Your task to perform on an android device: Search for pizza restaurants on Maps Image 0: 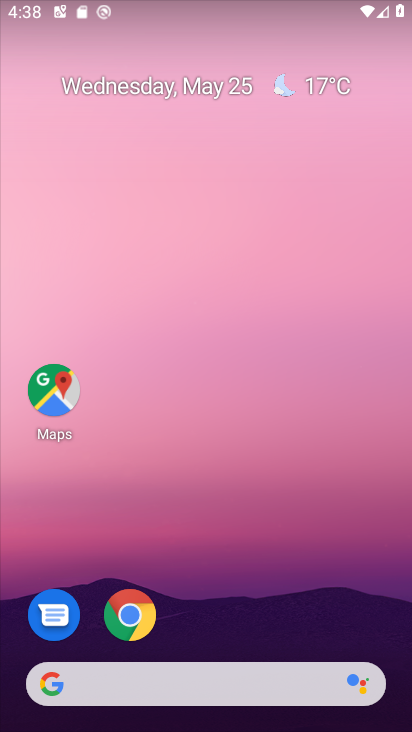
Step 0: click (62, 386)
Your task to perform on an android device: Search for pizza restaurants on Maps Image 1: 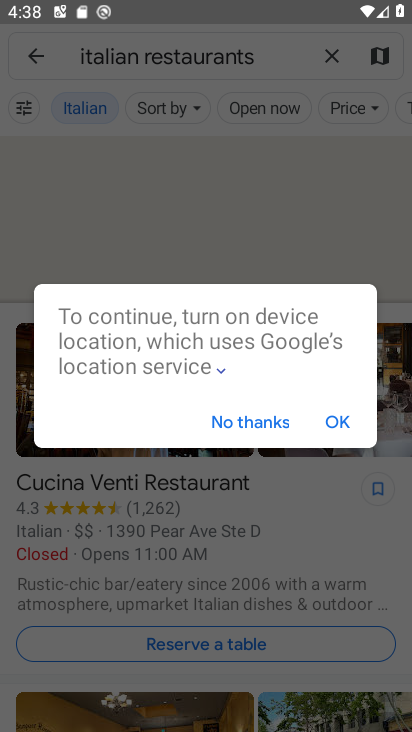
Step 1: click (234, 421)
Your task to perform on an android device: Search for pizza restaurants on Maps Image 2: 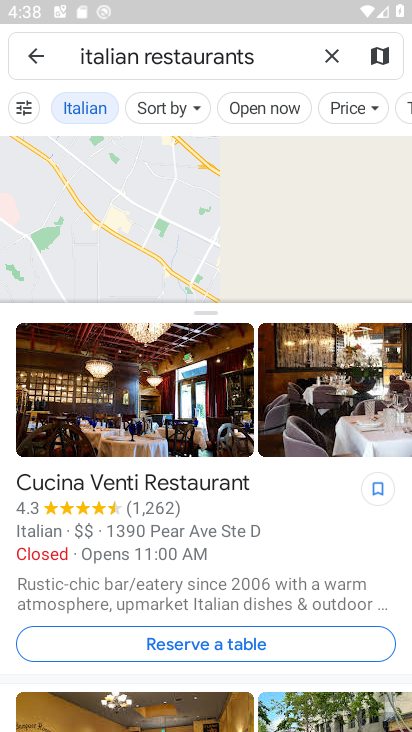
Step 2: click (332, 53)
Your task to perform on an android device: Search for pizza restaurants on Maps Image 3: 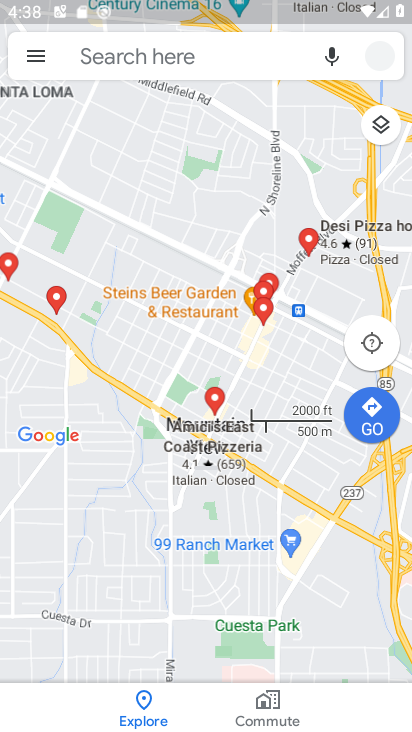
Step 3: click (203, 52)
Your task to perform on an android device: Search for pizza restaurants on Maps Image 4: 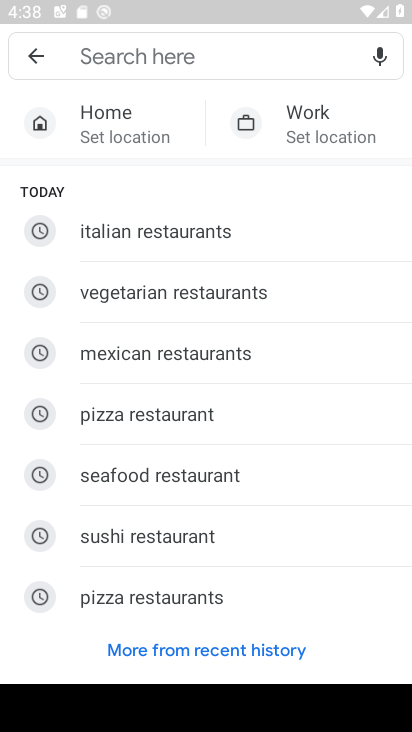
Step 4: click (173, 414)
Your task to perform on an android device: Search for pizza restaurants on Maps Image 5: 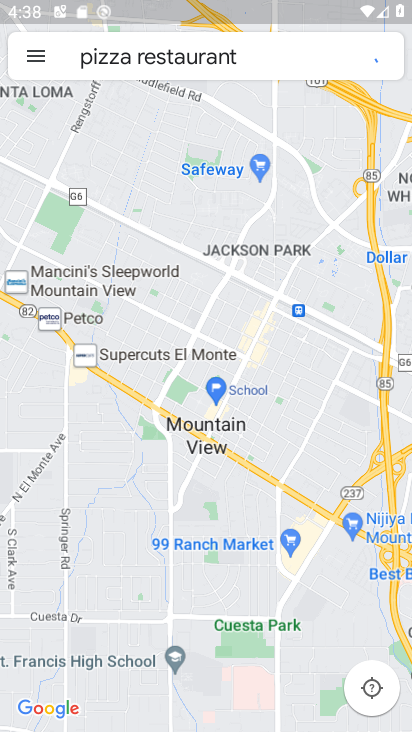
Step 5: task complete